Your task to perform on an android device: check google app version Image 0: 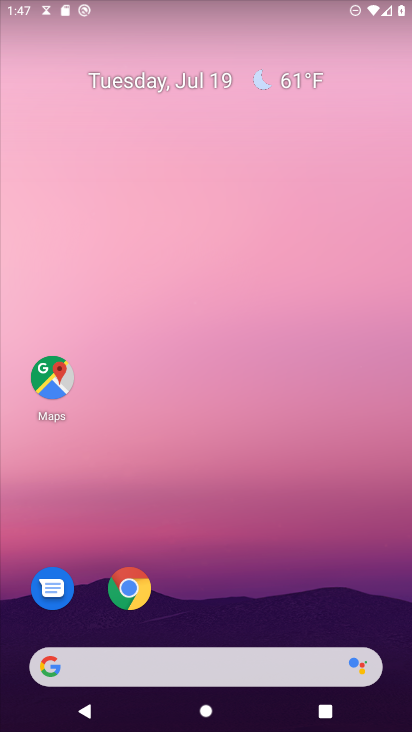
Step 0: click (148, 600)
Your task to perform on an android device: check google app version Image 1: 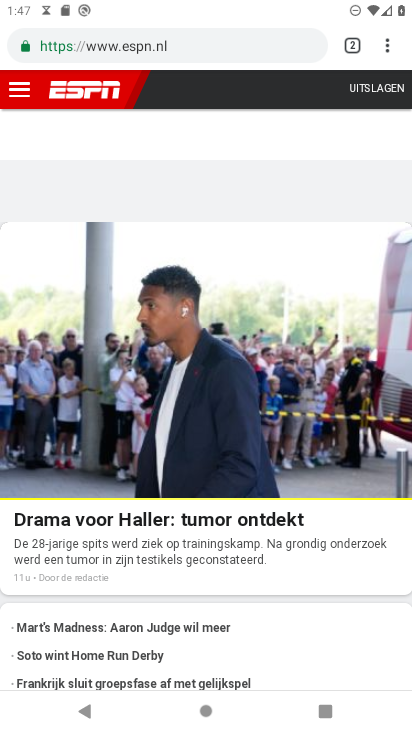
Step 1: click (387, 58)
Your task to perform on an android device: check google app version Image 2: 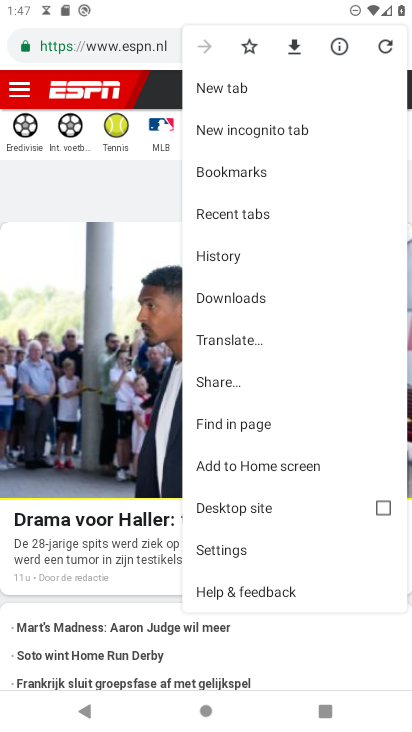
Step 2: click (221, 546)
Your task to perform on an android device: check google app version Image 3: 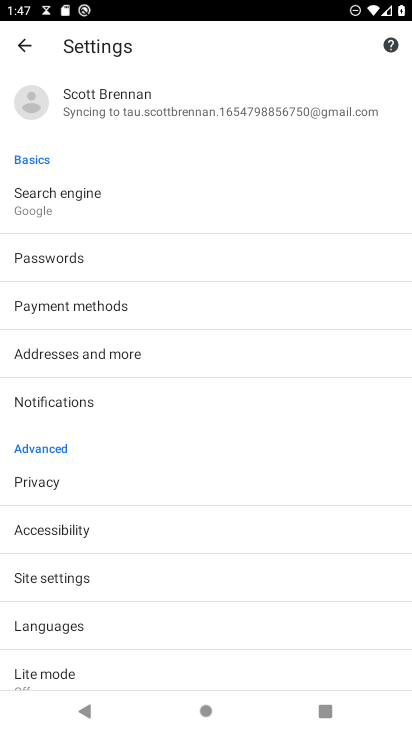
Step 3: drag from (173, 580) to (189, 413)
Your task to perform on an android device: check google app version Image 4: 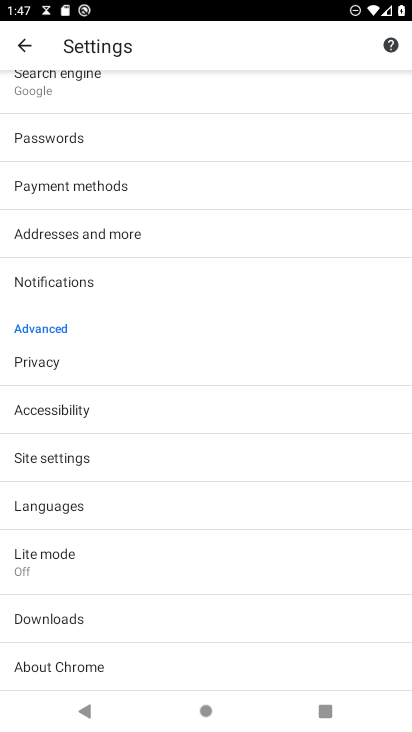
Step 4: click (56, 673)
Your task to perform on an android device: check google app version Image 5: 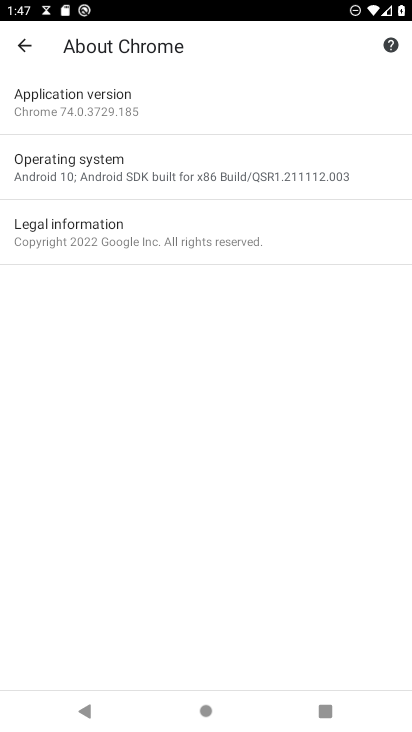
Step 5: click (39, 118)
Your task to perform on an android device: check google app version Image 6: 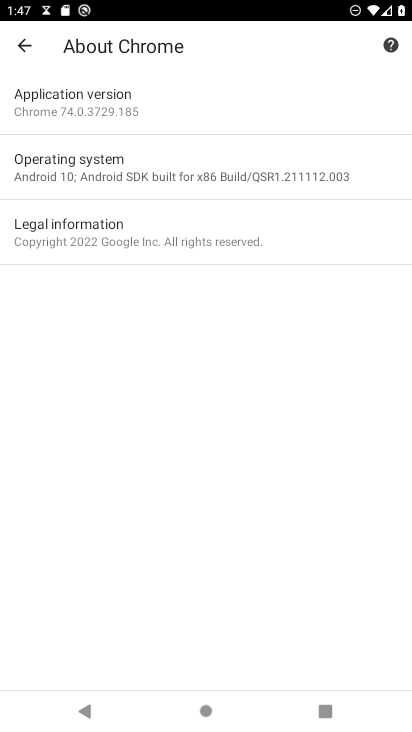
Step 6: task complete